Your task to perform on an android device: check storage Image 0: 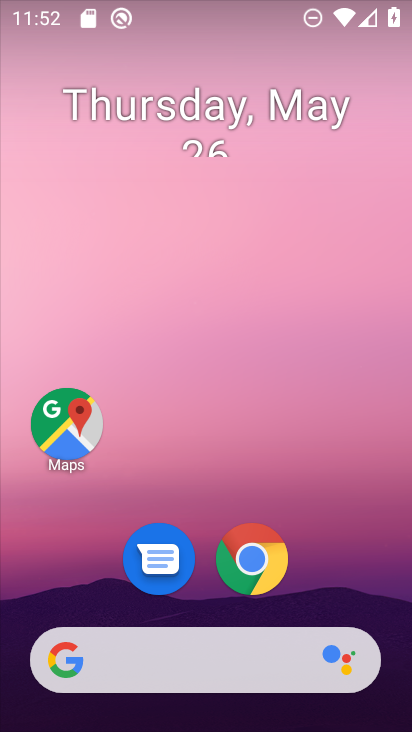
Step 0: drag from (308, 567) to (237, 41)
Your task to perform on an android device: check storage Image 1: 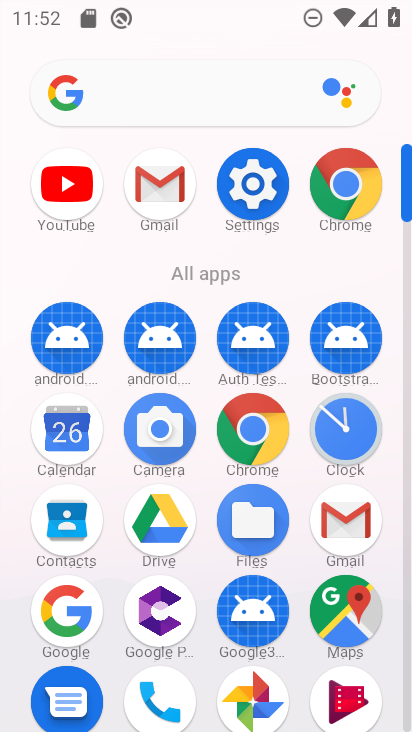
Step 1: click (242, 188)
Your task to perform on an android device: check storage Image 2: 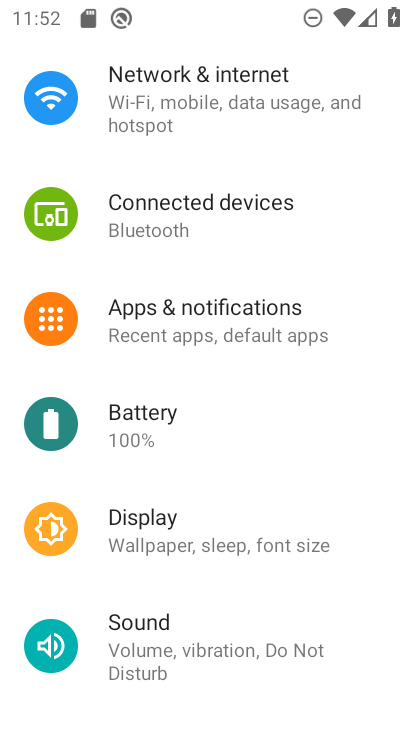
Step 2: drag from (291, 569) to (280, 265)
Your task to perform on an android device: check storage Image 3: 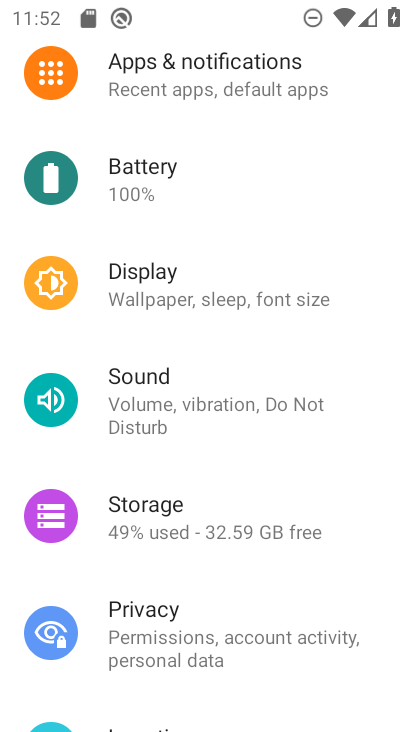
Step 3: click (178, 502)
Your task to perform on an android device: check storage Image 4: 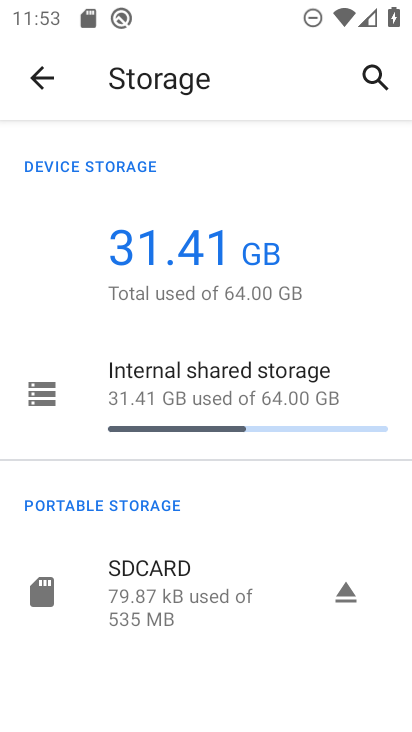
Step 4: task complete